Your task to perform on an android device: Go to Reddit.com Image 0: 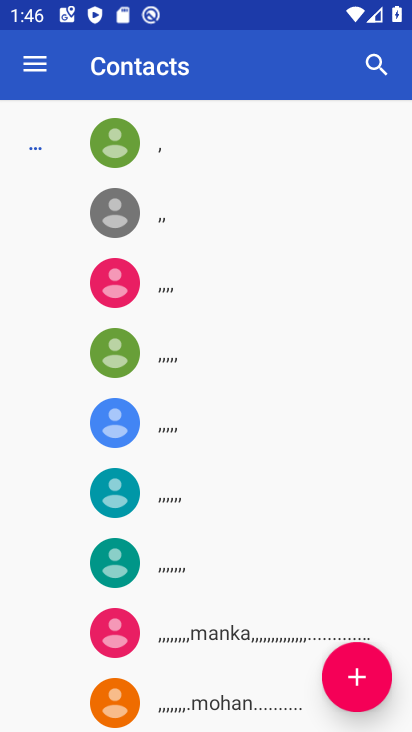
Step 0: press home button
Your task to perform on an android device: Go to Reddit.com Image 1: 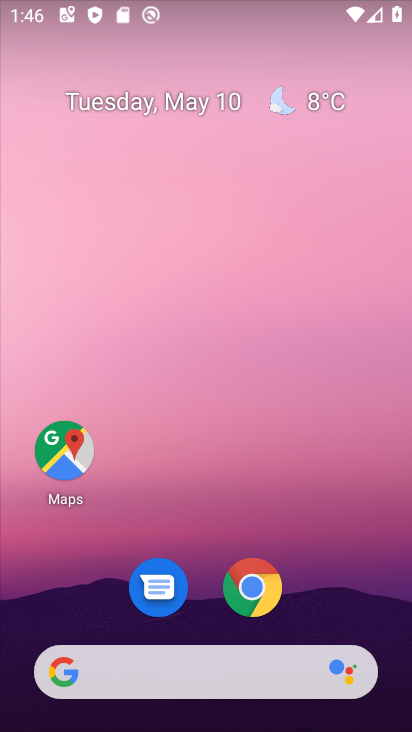
Step 1: click (260, 573)
Your task to perform on an android device: Go to Reddit.com Image 2: 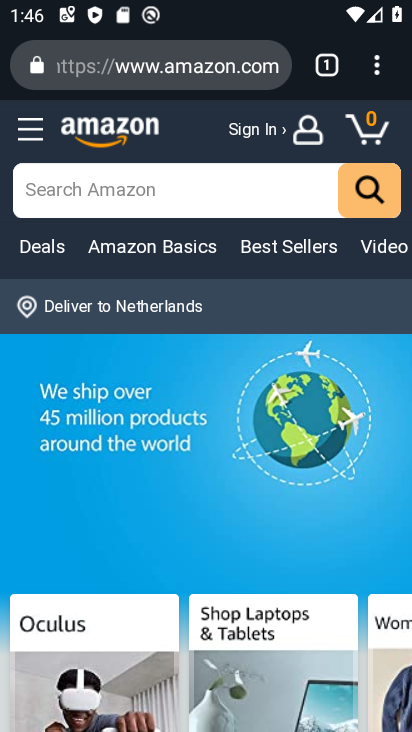
Step 2: click (181, 66)
Your task to perform on an android device: Go to Reddit.com Image 3: 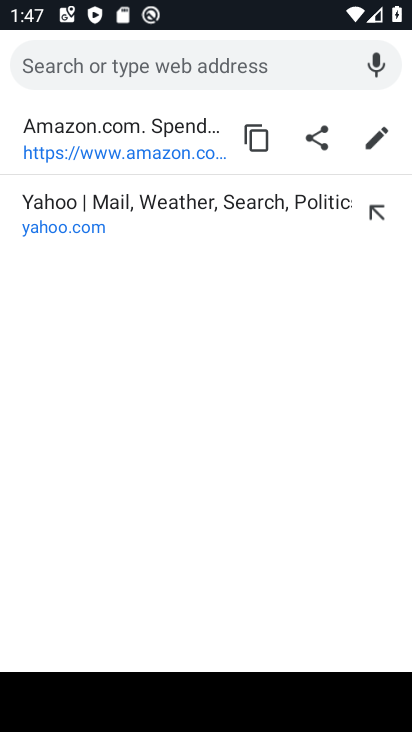
Step 3: type "reddit.com"
Your task to perform on an android device: Go to Reddit.com Image 4: 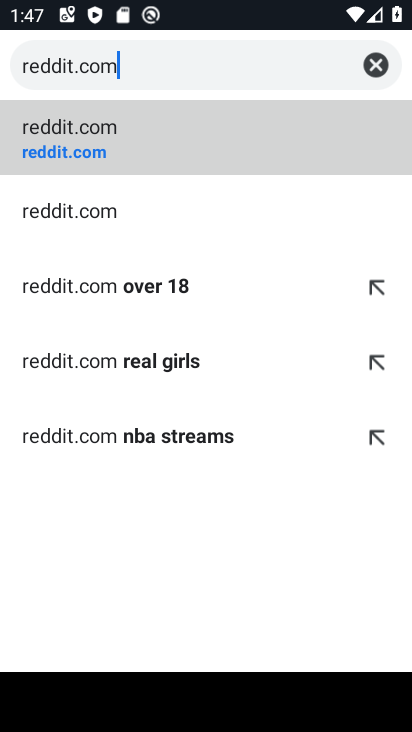
Step 4: click (110, 141)
Your task to perform on an android device: Go to Reddit.com Image 5: 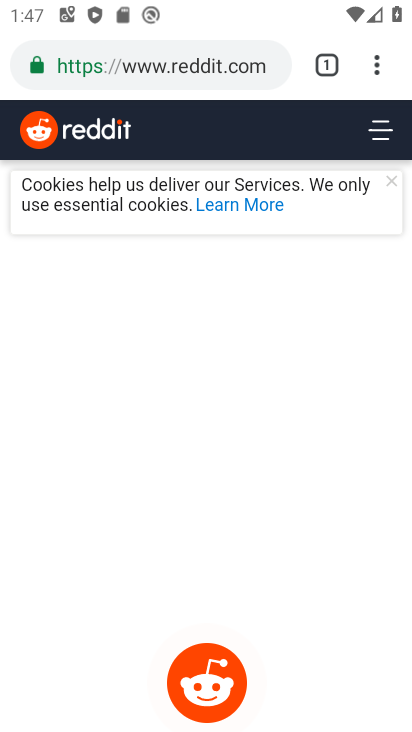
Step 5: task complete